Your task to perform on an android device: turn off airplane mode Image 0: 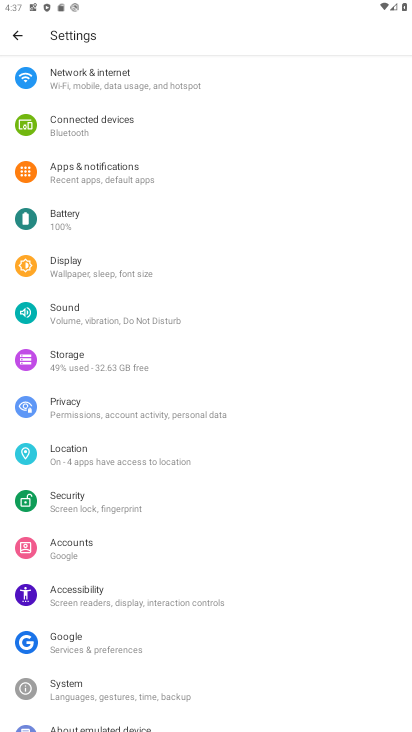
Step 0: drag from (348, 3) to (352, 217)
Your task to perform on an android device: turn off airplane mode Image 1: 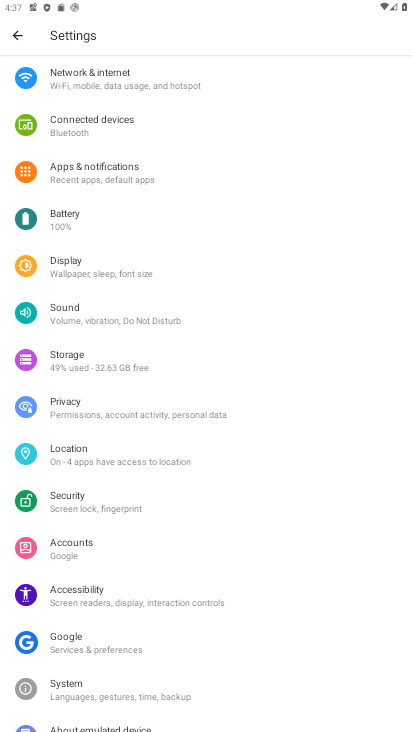
Step 1: task complete